Your task to perform on an android device: Open the web browser Image 0: 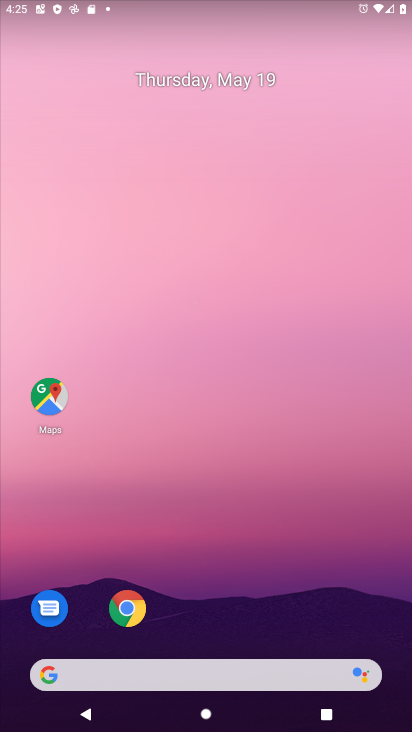
Step 0: click (105, 608)
Your task to perform on an android device: Open the web browser Image 1: 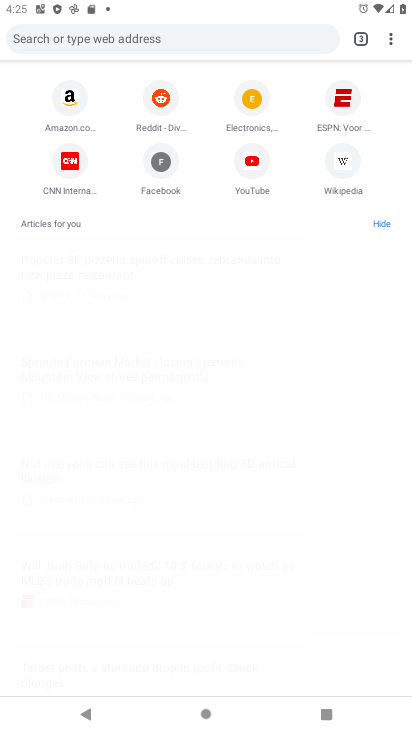
Step 1: task complete